Your task to perform on an android device: Clear the shopping cart on target.com. Add duracell triple a to the cart on target.com Image 0: 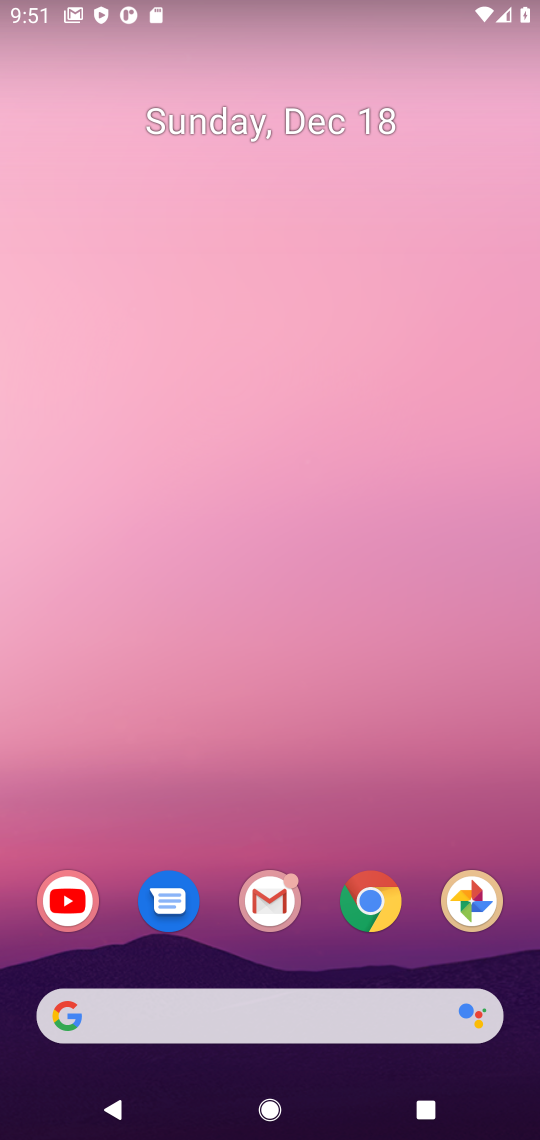
Step 0: click (389, 903)
Your task to perform on an android device: Clear the shopping cart on target.com. Add duracell triple a to the cart on target.com Image 1: 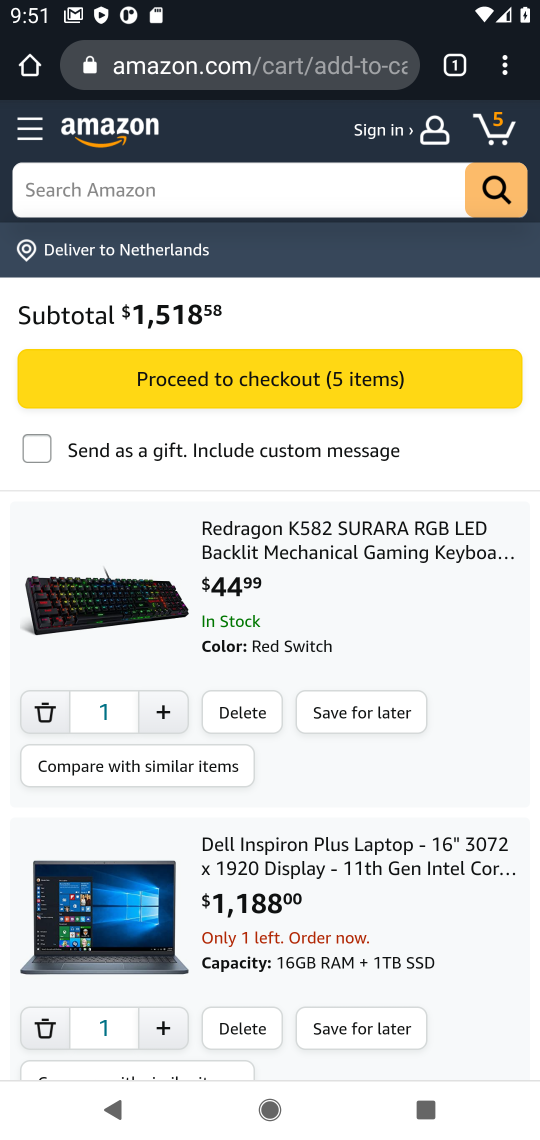
Step 1: click (293, 63)
Your task to perform on an android device: Clear the shopping cart on target.com. Add duracell triple a to the cart on target.com Image 2: 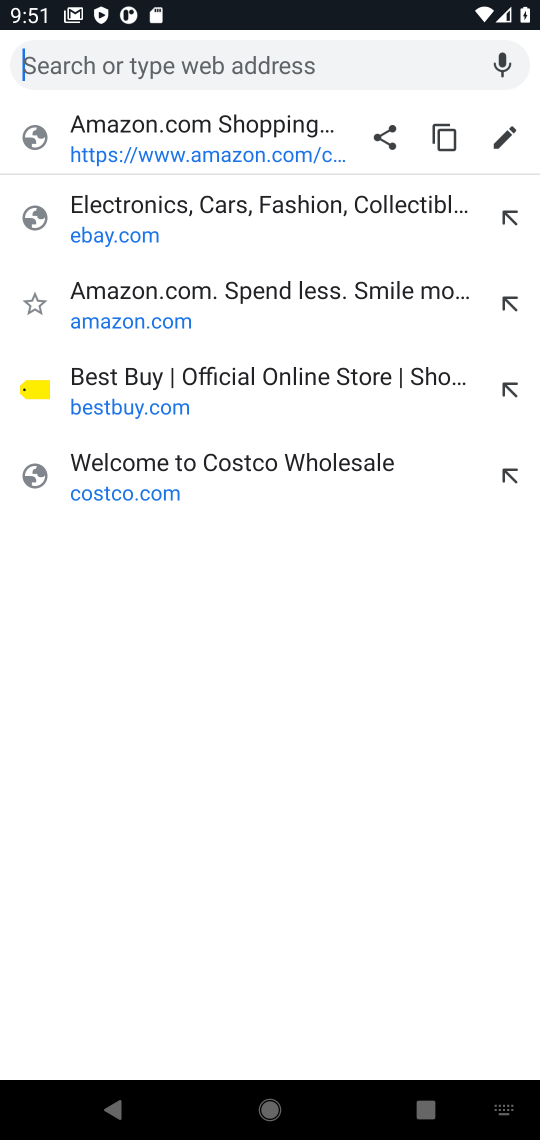
Step 2: type "target"
Your task to perform on an android device: Clear the shopping cart on target.com. Add duracell triple a to the cart on target.com Image 3: 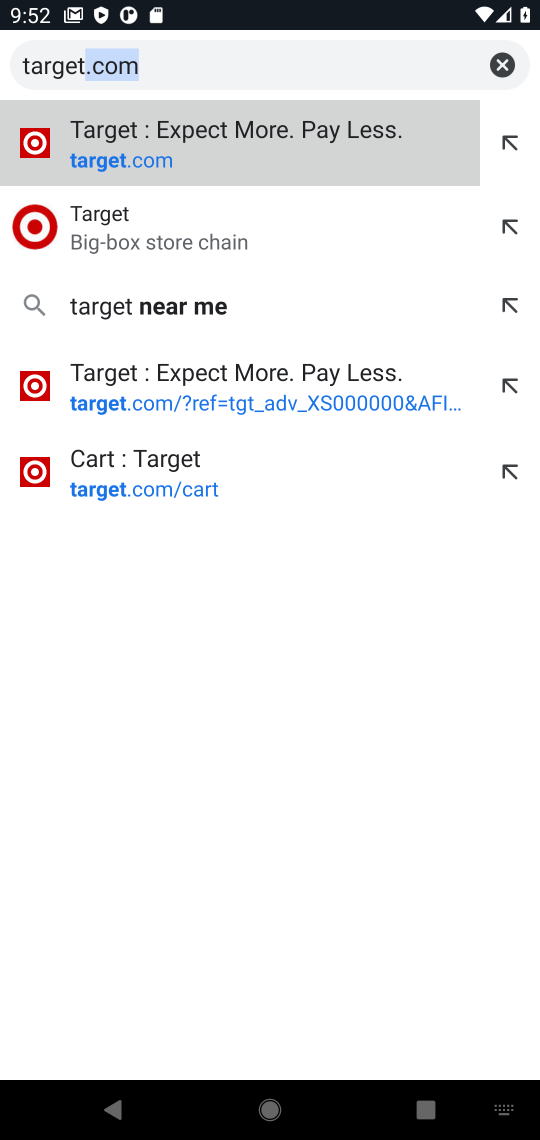
Step 3: click (114, 132)
Your task to perform on an android device: Clear the shopping cart on target.com. Add duracell triple a to the cart on target.com Image 4: 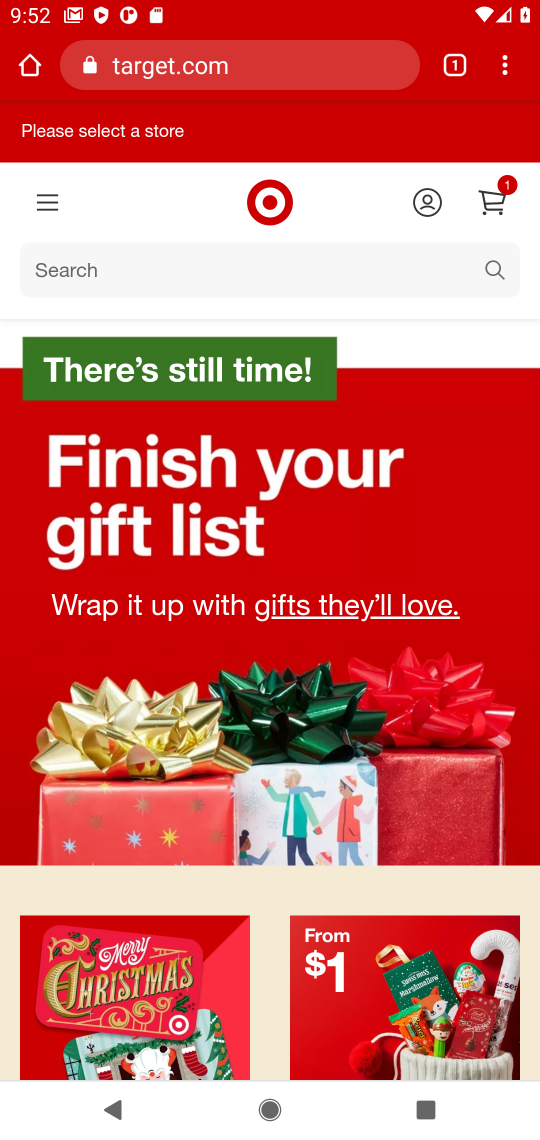
Step 4: click (205, 262)
Your task to perform on an android device: Clear the shopping cart on target.com. Add duracell triple a to the cart on target.com Image 5: 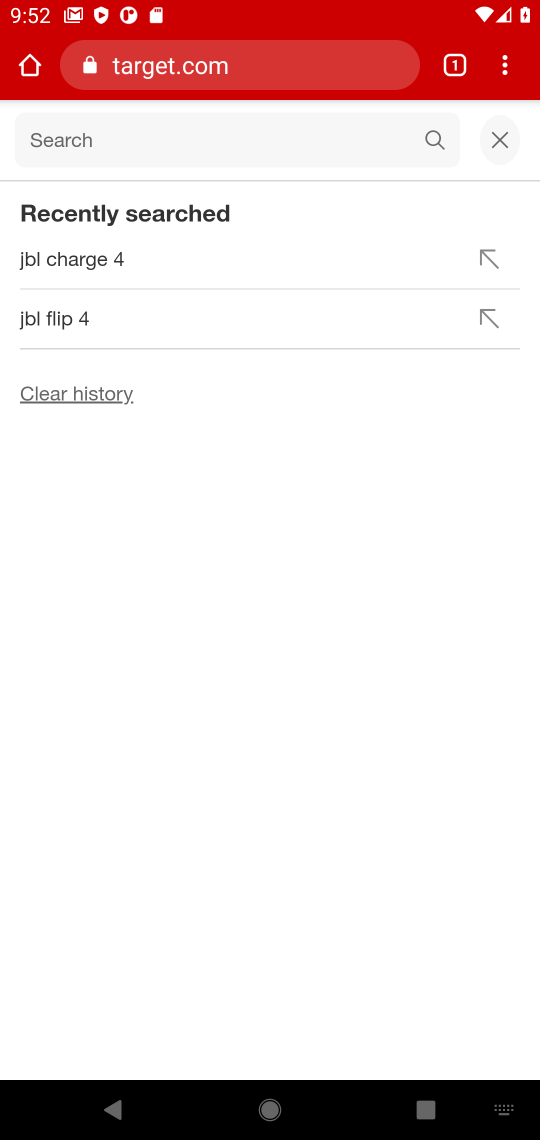
Step 5: type "deracell"
Your task to perform on an android device: Clear the shopping cart on target.com. Add duracell triple a to the cart on target.com Image 6: 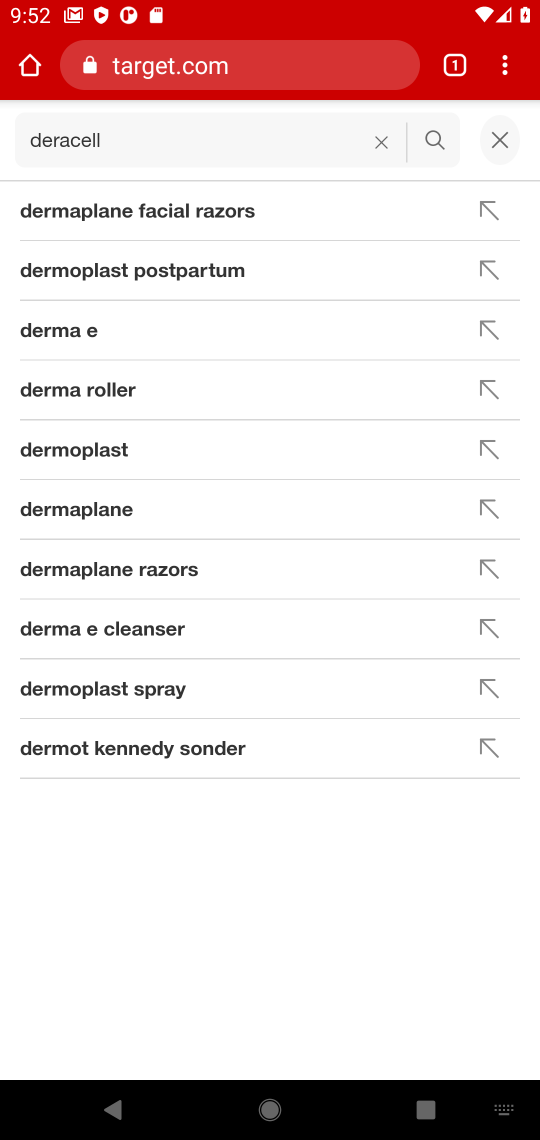
Step 6: task complete